Your task to perform on an android device: clear all cookies in the chrome app Image 0: 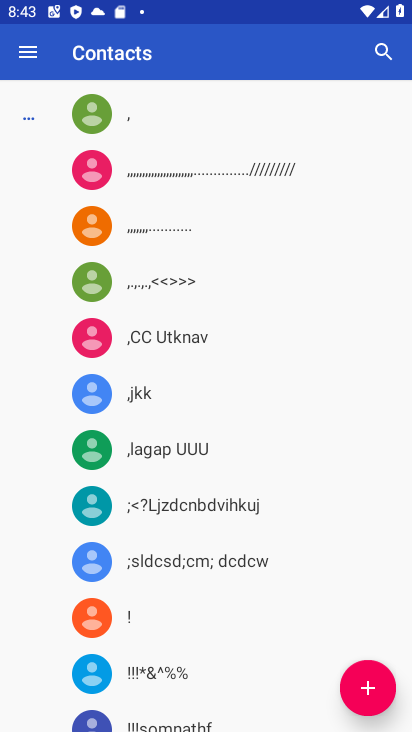
Step 0: press home button
Your task to perform on an android device: clear all cookies in the chrome app Image 1: 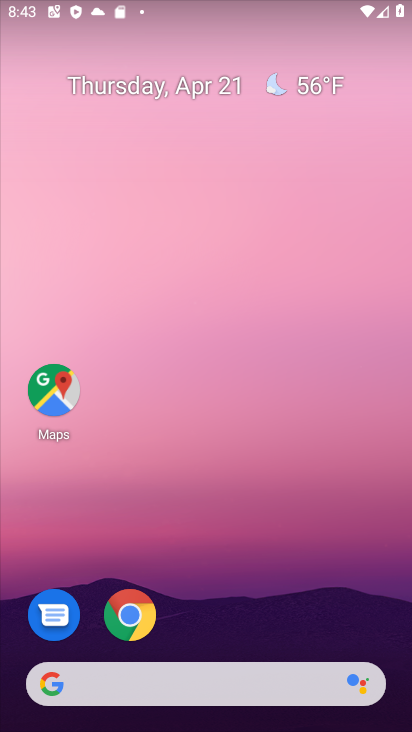
Step 1: click (136, 614)
Your task to perform on an android device: clear all cookies in the chrome app Image 2: 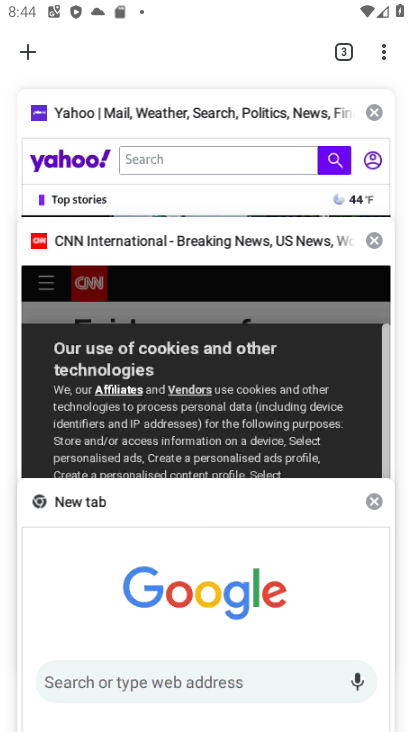
Step 2: press back button
Your task to perform on an android device: clear all cookies in the chrome app Image 3: 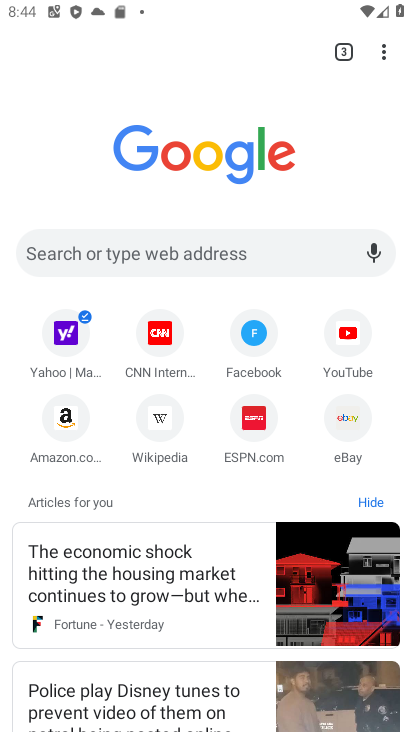
Step 3: click (374, 53)
Your task to perform on an android device: clear all cookies in the chrome app Image 4: 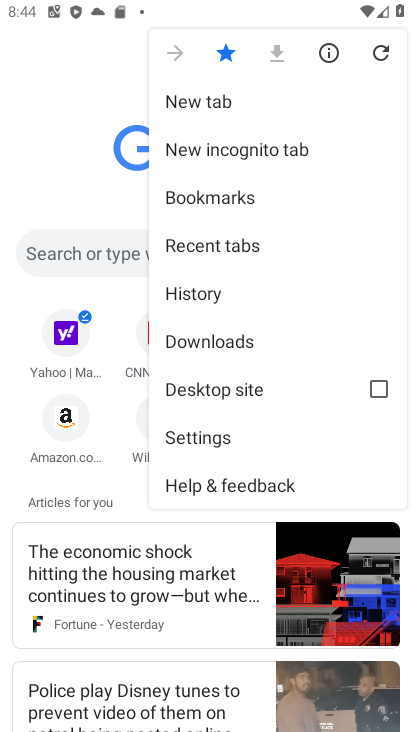
Step 4: click (223, 437)
Your task to perform on an android device: clear all cookies in the chrome app Image 5: 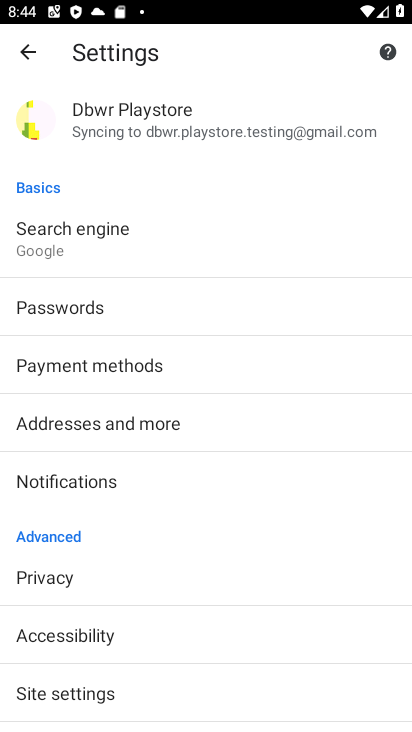
Step 5: click (103, 574)
Your task to perform on an android device: clear all cookies in the chrome app Image 6: 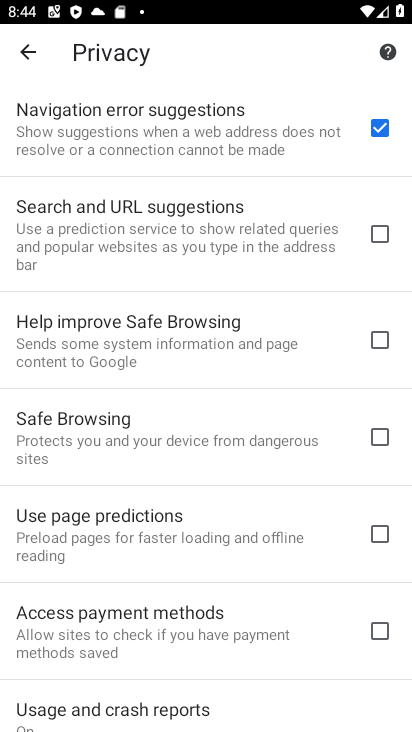
Step 6: drag from (319, 622) to (296, 18)
Your task to perform on an android device: clear all cookies in the chrome app Image 7: 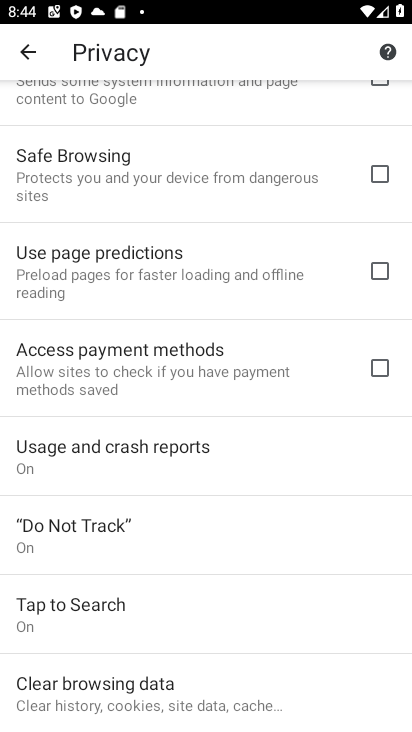
Step 7: click (144, 685)
Your task to perform on an android device: clear all cookies in the chrome app Image 8: 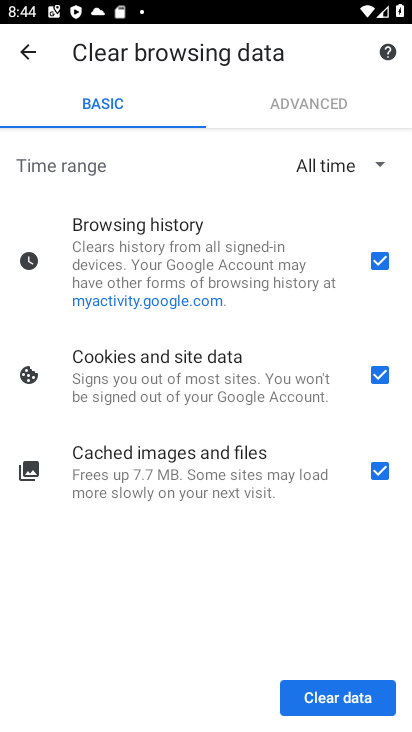
Step 8: click (383, 258)
Your task to perform on an android device: clear all cookies in the chrome app Image 9: 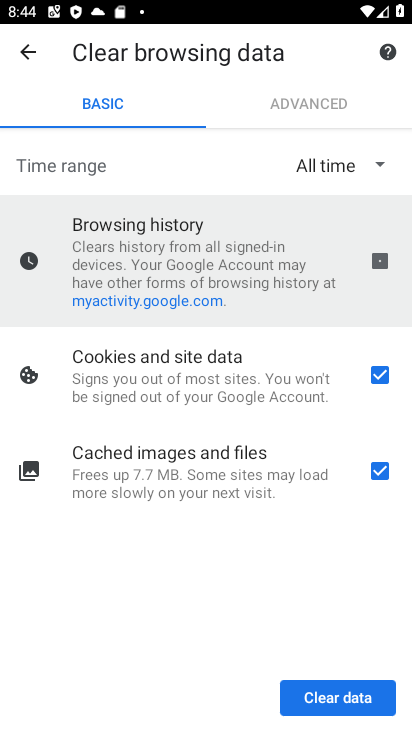
Step 9: click (378, 474)
Your task to perform on an android device: clear all cookies in the chrome app Image 10: 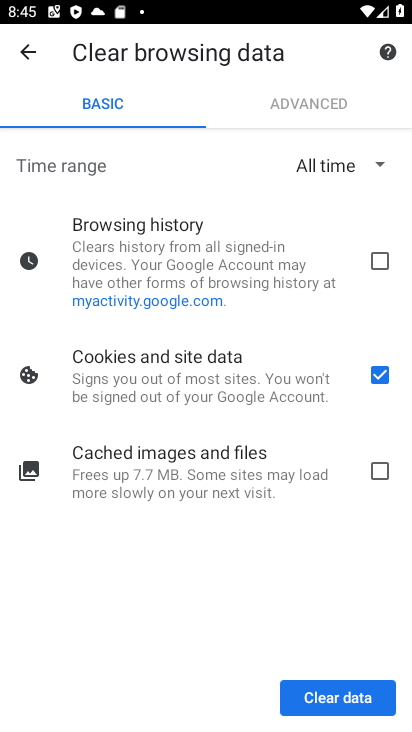
Step 10: click (343, 704)
Your task to perform on an android device: clear all cookies in the chrome app Image 11: 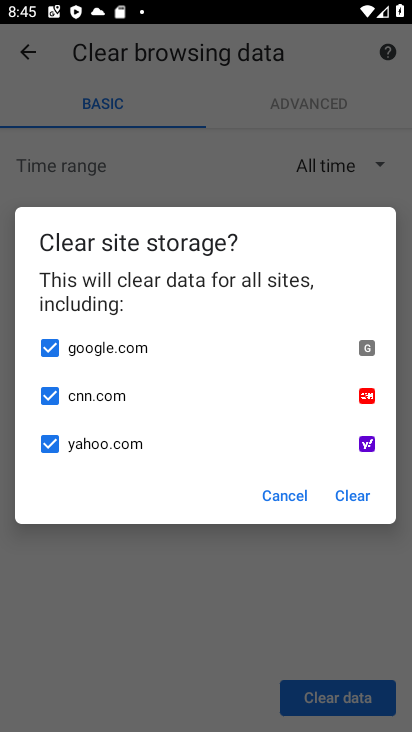
Step 11: click (348, 499)
Your task to perform on an android device: clear all cookies in the chrome app Image 12: 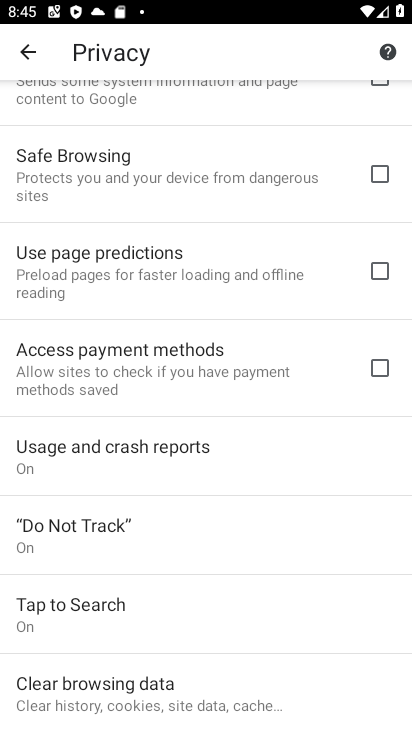
Step 12: task complete